Your task to perform on an android device: What's the weather today? Image 0: 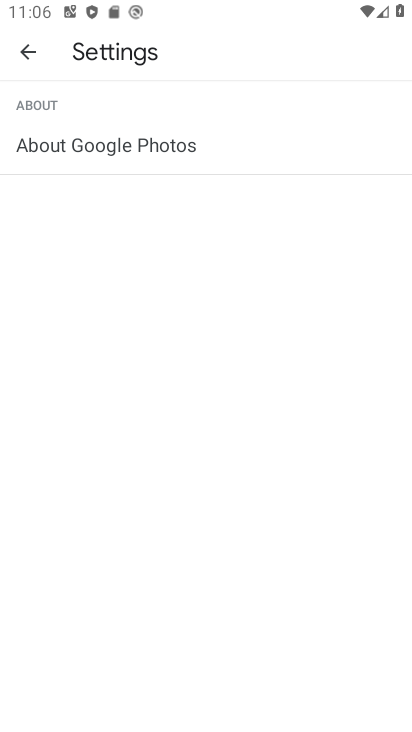
Step 0: press home button
Your task to perform on an android device: What's the weather today? Image 1: 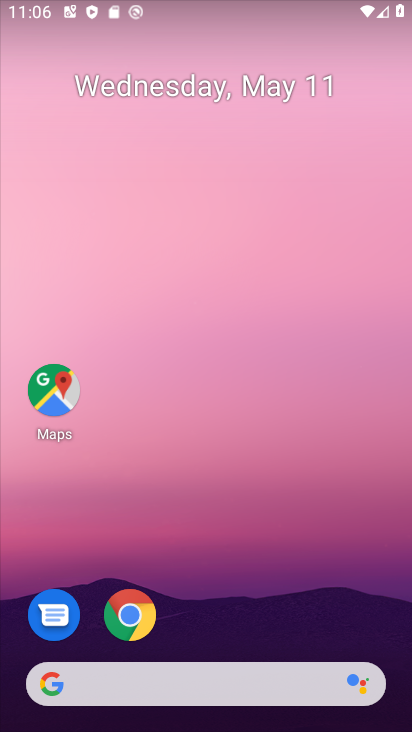
Step 1: click (237, 678)
Your task to perform on an android device: What's the weather today? Image 2: 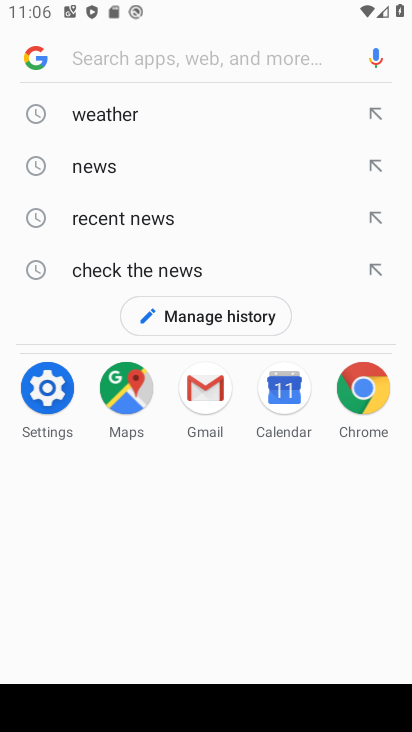
Step 2: click (117, 119)
Your task to perform on an android device: What's the weather today? Image 3: 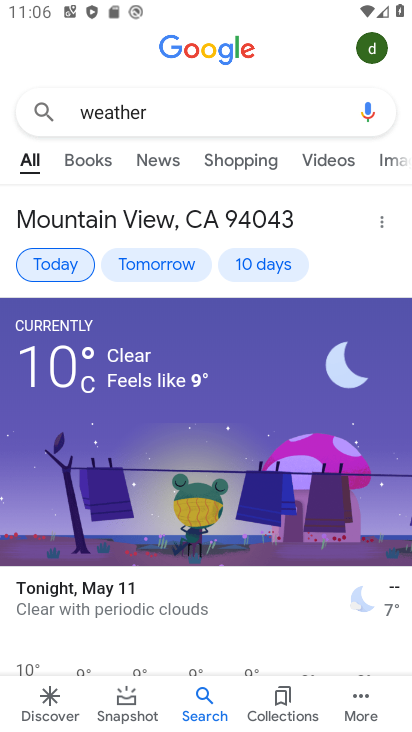
Step 3: task complete